Your task to perform on an android device: Show me recent news Image 0: 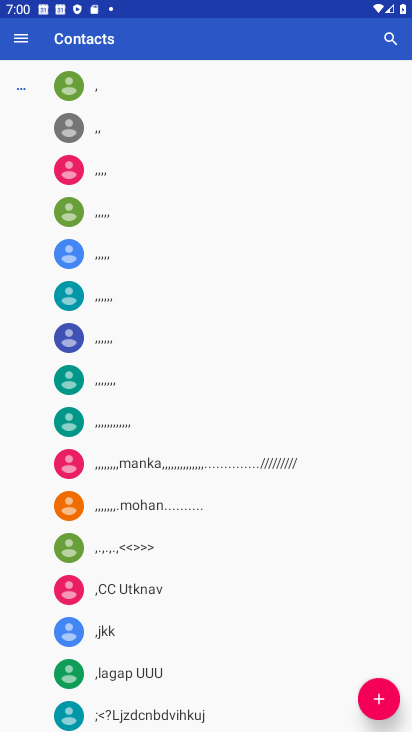
Step 0: press home button
Your task to perform on an android device: Show me recent news Image 1: 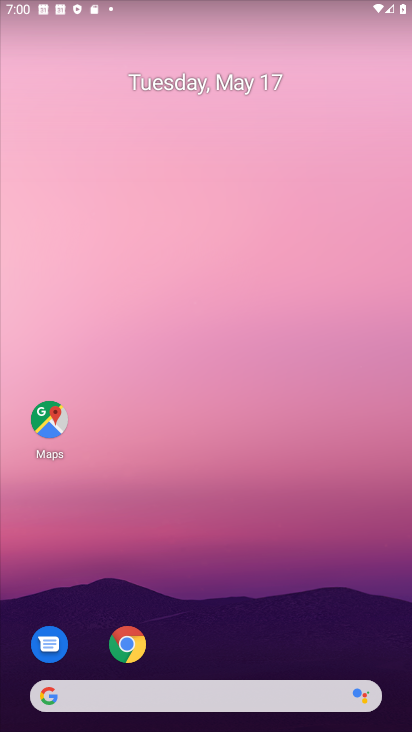
Step 1: drag from (332, 616) to (299, 69)
Your task to perform on an android device: Show me recent news Image 2: 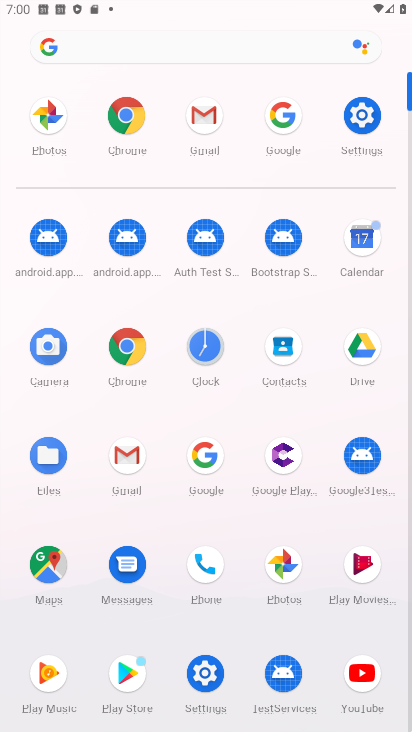
Step 2: click (283, 121)
Your task to perform on an android device: Show me recent news Image 3: 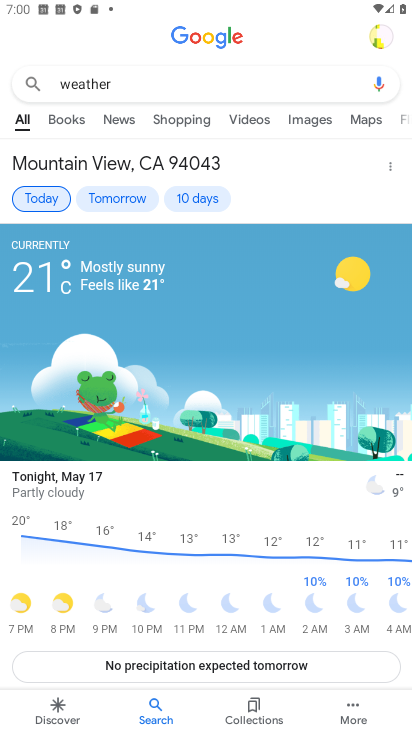
Step 3: press back button
Your task to perform on an android device: Show me recent news Image 4: 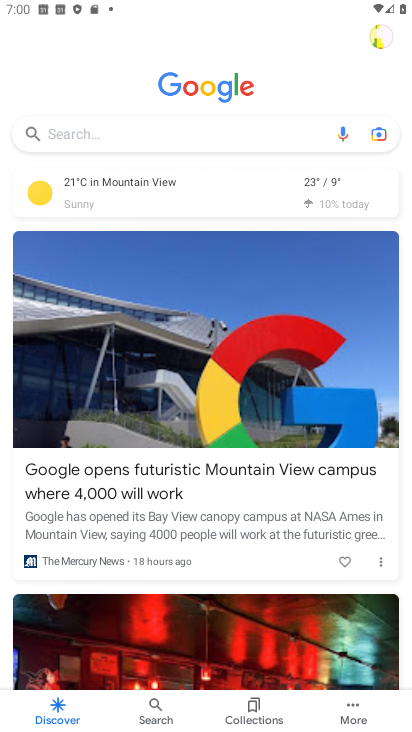
Step 4: click (167, 140)
Your task to perform on an android device: Show me recent news Image 5: 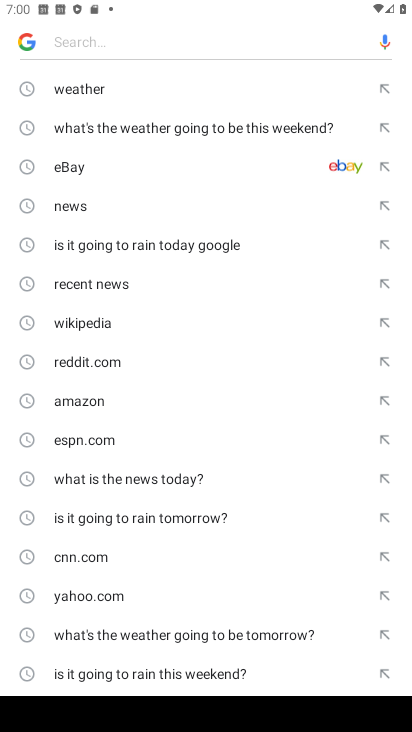
Step 5: click (69, 193)
Your task to perform on an android device: Show me recent news Image 6: 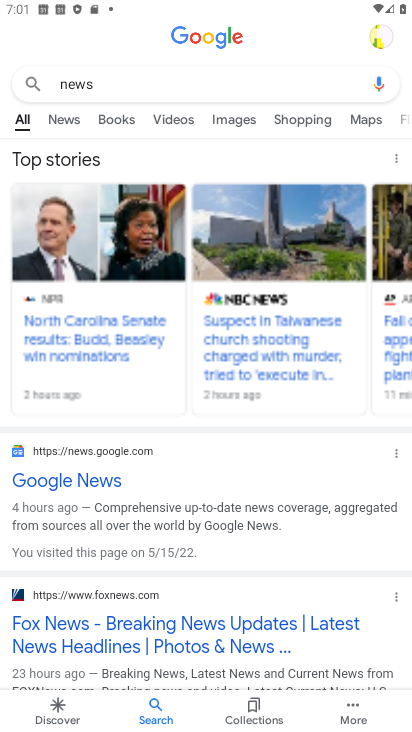
Step 6: task complete